Your task to perform on an android device: toggle show notifications on the lock screen Image 0: 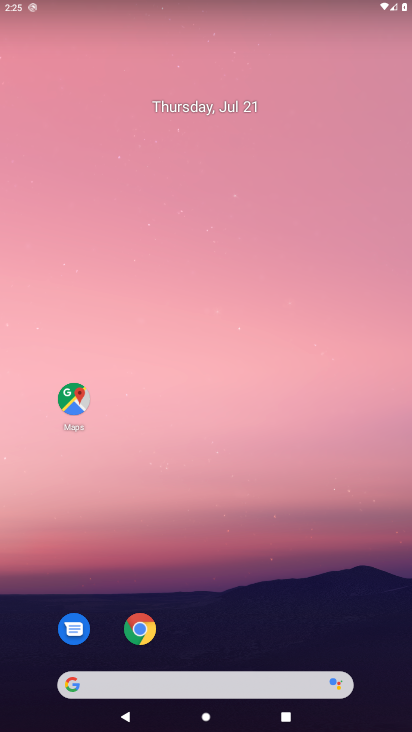
Step 0: drag from (48, 657) to (144, 345)
Your task to perform on an android device: toggle show notifications on the lock screen Image 1: 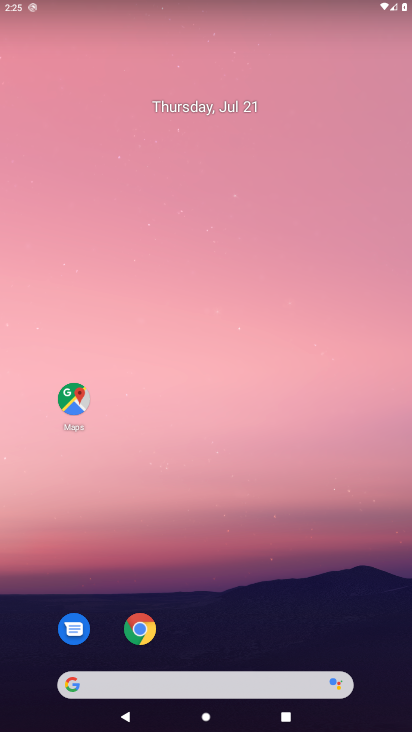
Step 1: drag from (33, 657) to (184, 231)
Your task to perform on an android device: toggle show notifications on the lock screen Image 2: 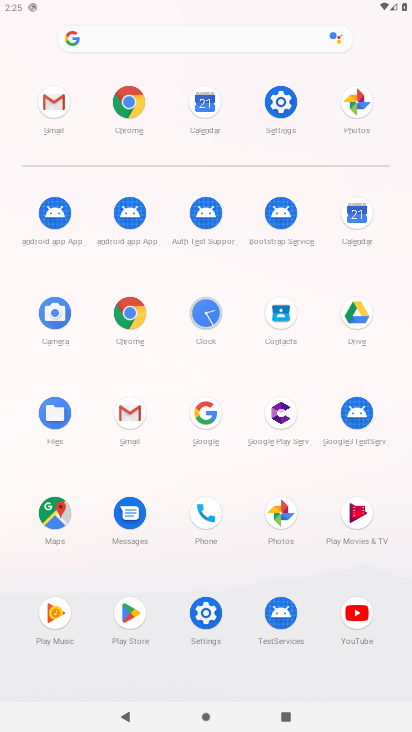
Step 2: click (215, 608)
Your task to perform on an android device: toggle show notifications on the lock screen Image 3: 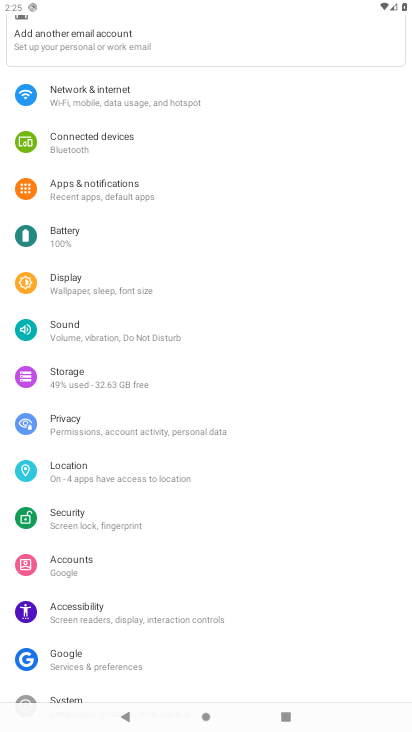
Step 3: click (80, 430)
Your task to perform on an android device: toggle show notifications on the lock screen Image 4: 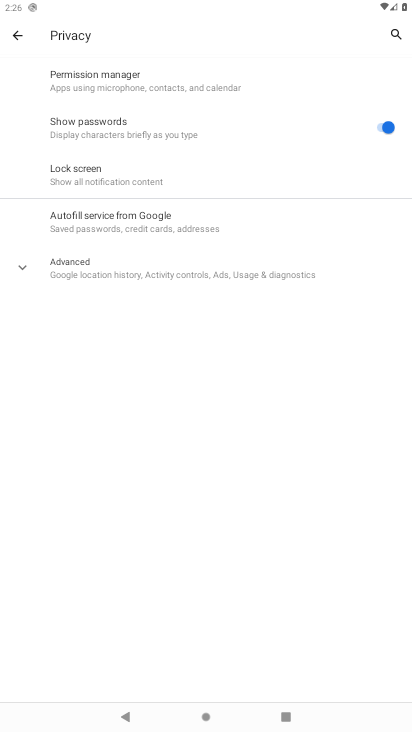
Step 4: click (73, 177)
Your task to perform on an android device: toggle show notifications on the lock screen Image 5: 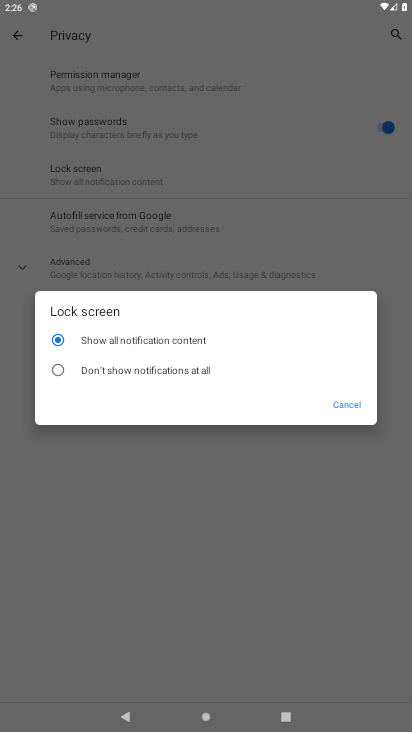
Step 5: task complete